Your task to perform on an android device: turn off notifications settings in the gmail app Image 0: 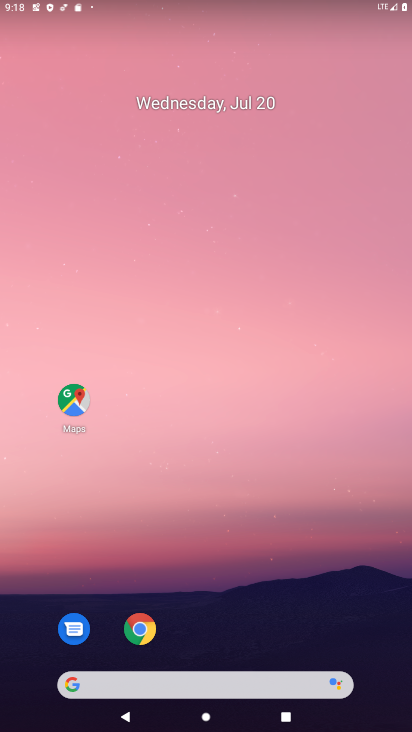
Step 0: press home button
Your task to perform on an android device: turn off notifications settings in the gmail app Image 1: 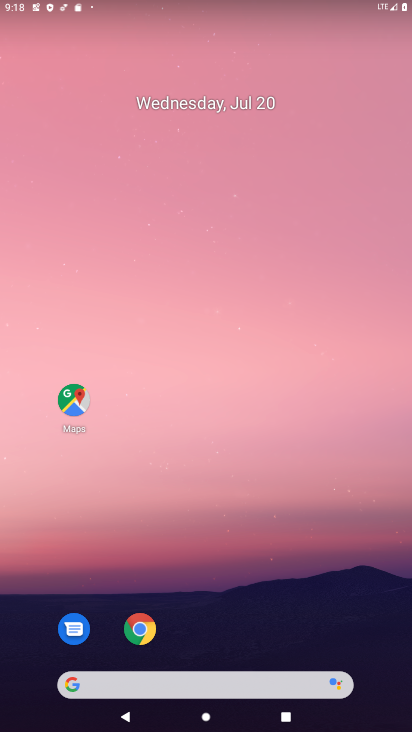
Step 1: drag from (279, 679) to (330, 25)
Your task to perform on an android device: turn off notifications settings in the gmail app Image 2: 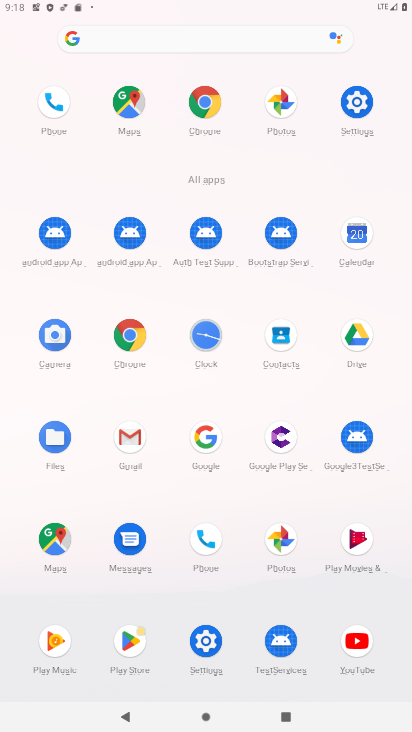
Step 2: click (125, 438)
Your task to perform on an android device: turn off notifications settings in the gmail app Image 3: 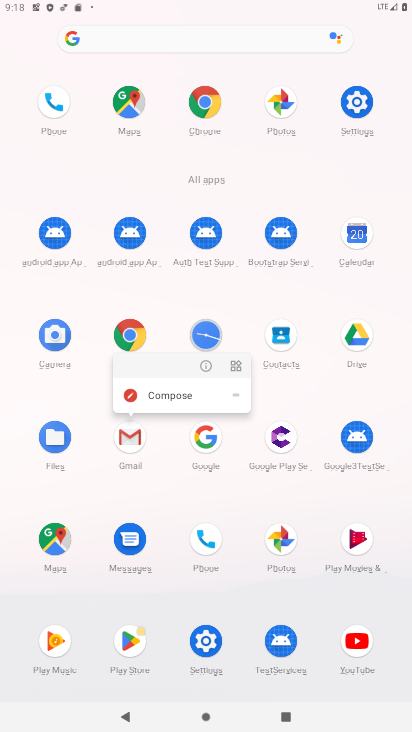
Step 3: click (210, 366)
Your task to perform on an android device: turn off notifications settings in the gmail app Image 4: 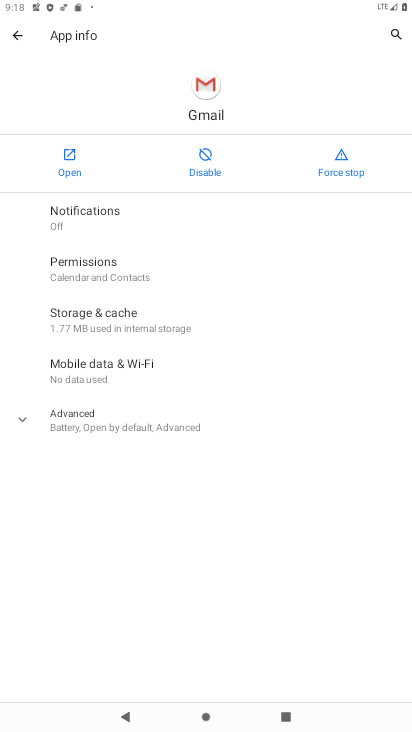
Step 4: click (113, 214)
Your task to perform on an android device: turn off notifications settings in the gmail app Image 5: 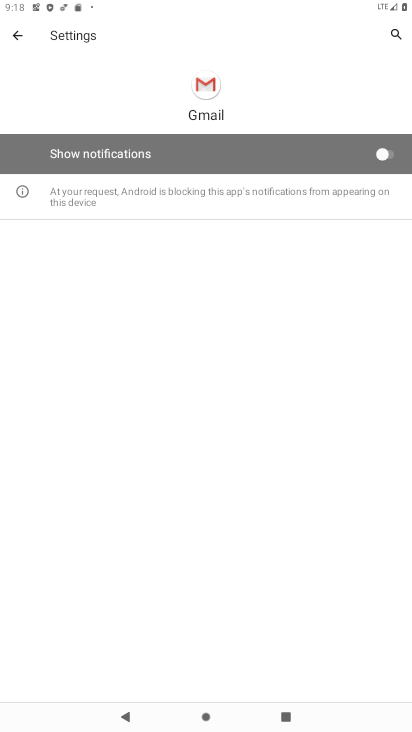
Step 5: task complete